Your task to perform on an android device: turn off location history Image 0: 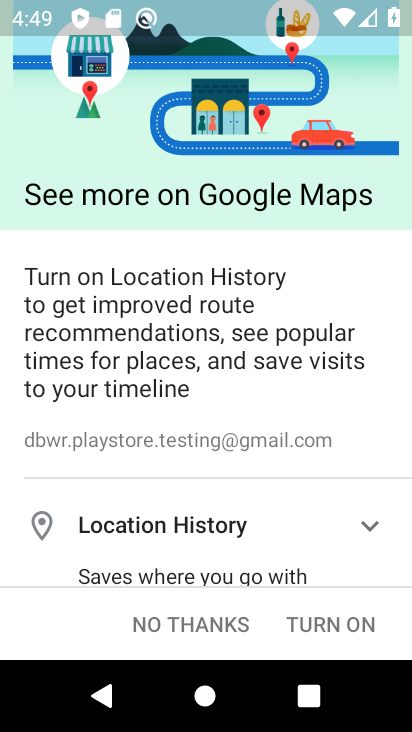
Step 0: click (232, 615)
Your task to perform on an android device: turn off location history Image 1: 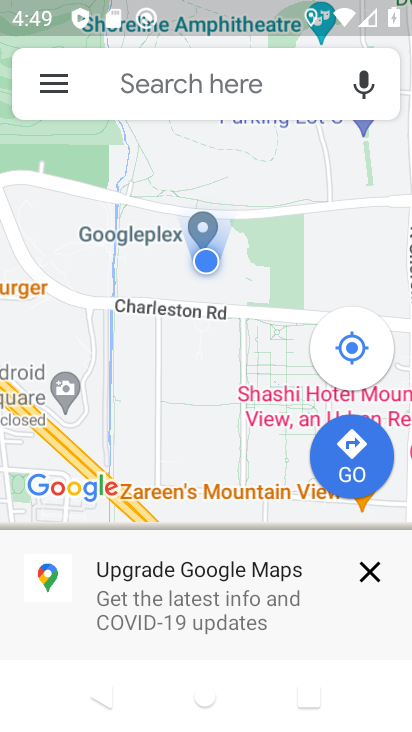
Step 1: press home button
Your task to perform on an android device: turn off location history Image 2: 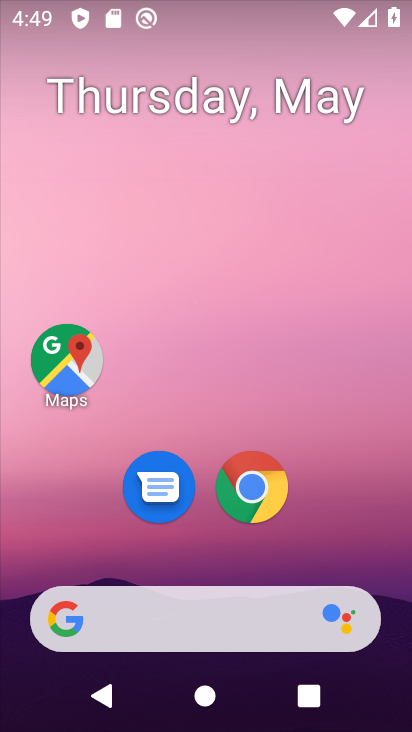
Step 2: drag from (327, 458) to (316, 53)
Your task to perform on an android device: turn off location history Image 3: 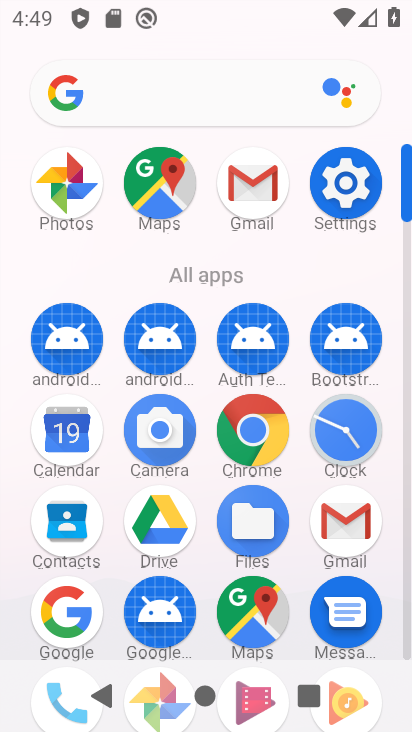
Step 3: click (336, 184)
Your task to perform on an android device: turn off location history Image 4: 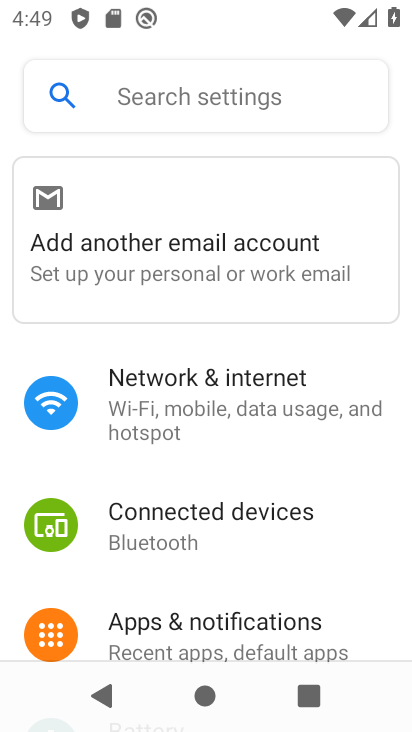
Step 4: drag from (237, 544) to (306, 119)
Your task to perform on an android device: turn off location history Image 5: 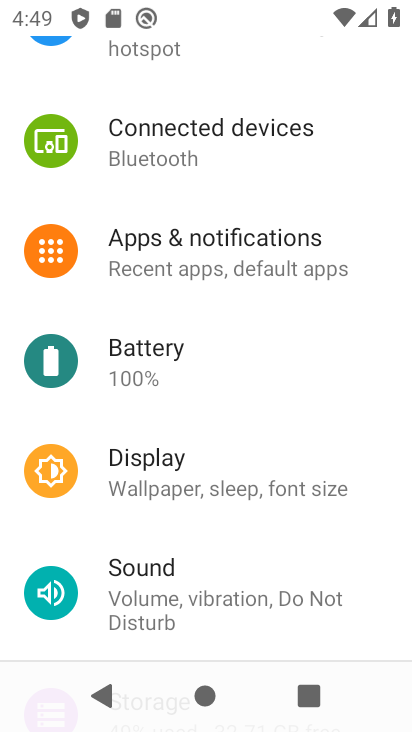
Step 5: drag from (198, 509) to (276, 142)
Your task to perform on an android device: turn off location history Image 6: 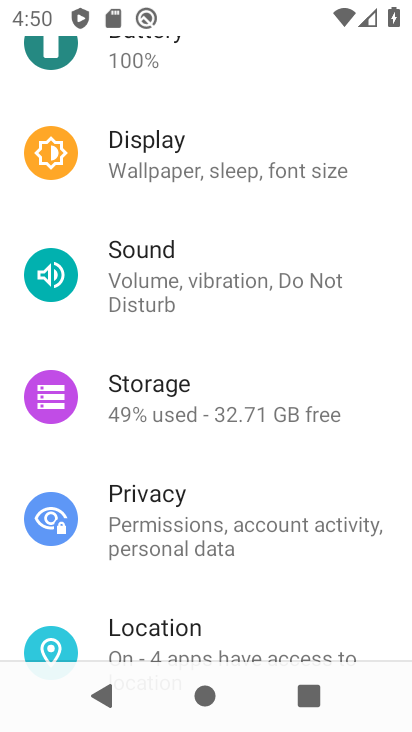
Step 6: click (214, 642)
Your task to perform on an android device: turn off location history Image 7: 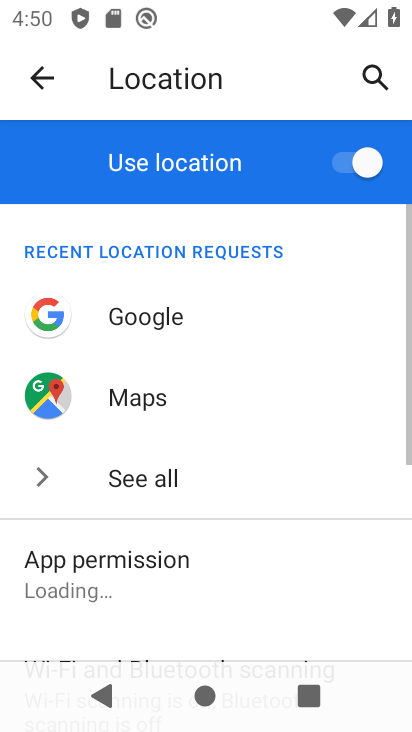
Step 7: drag from (244, 581) to (306, 131)
Your task to perform on an android device: turn off location history Image 8: 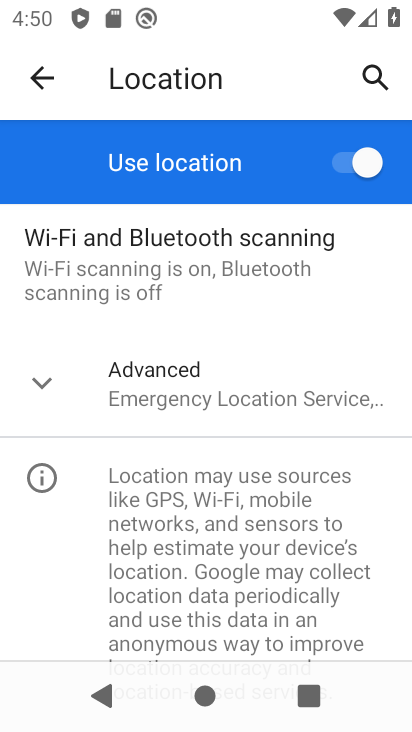
Step 8: click (46, 392)
Your task to perform on an android device: turn off location history Image 9: 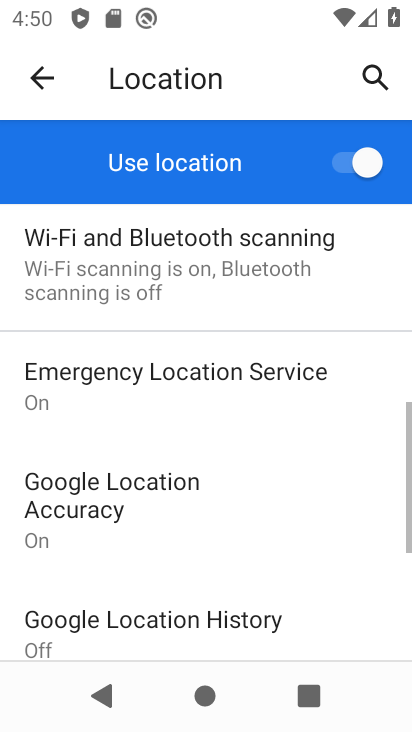
Step 9: drag from (175, 551) to (215, 262)
Your task to perform on an android device: turn off location history Image 10: 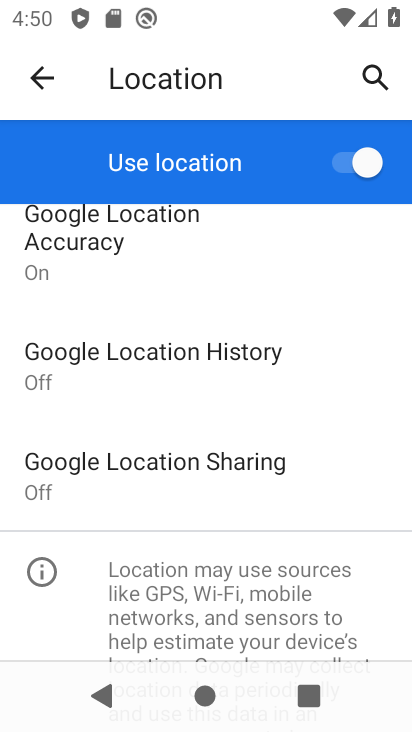
Step 10: click (245, 361)
Your task to perform on an android device: turn off location history Image 11: 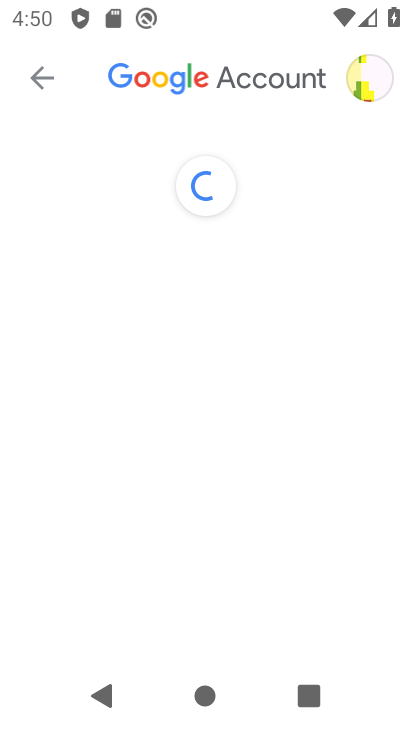
Step 11: task complete